Your task to perform on an android device: change text size in settings app Image 0: 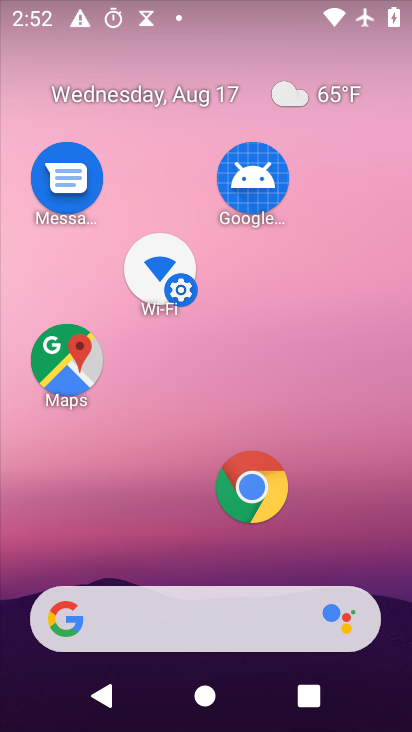
Step 0: drag from (240, 540) to (150, 8)
Your task to perform on an android device: change text size in settings app Image 1: 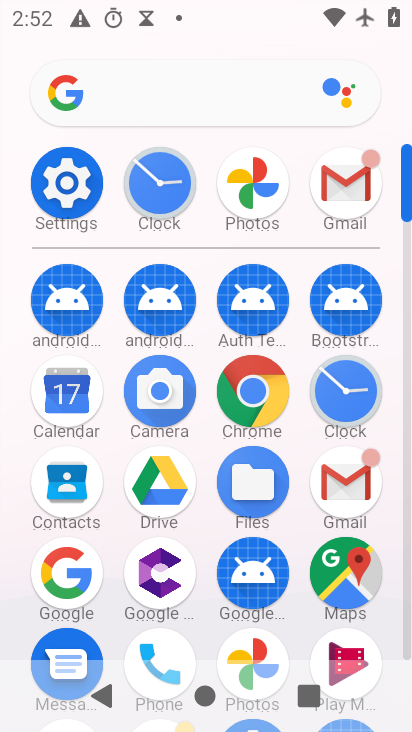
Step 1: click (68, 213)
Your task to perform on an android device: change text size in settings app Image 2: 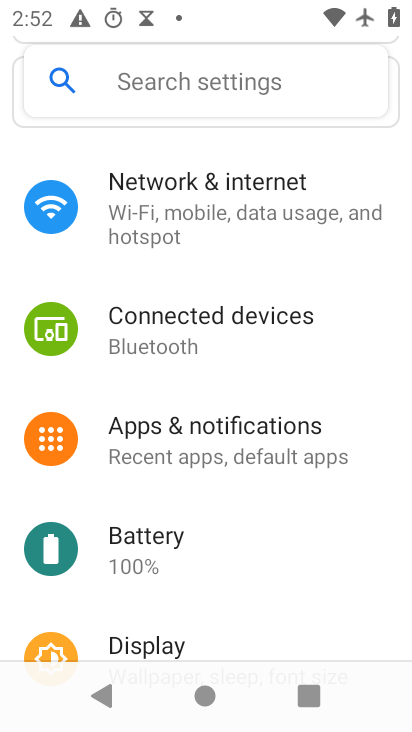
Step 2: drag from (309, 598) to (285, 108)
Your task to perform on an android device: change text size in settings app Image 3: 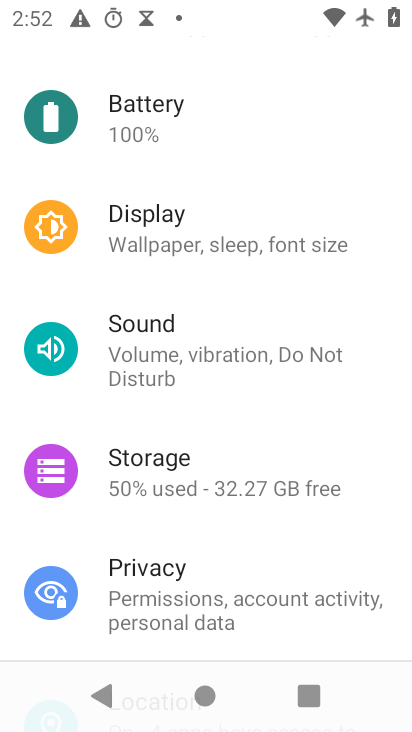
Step 3: click (202, 255)
Your task to perform on an android device: change text size in settings app Image 4: 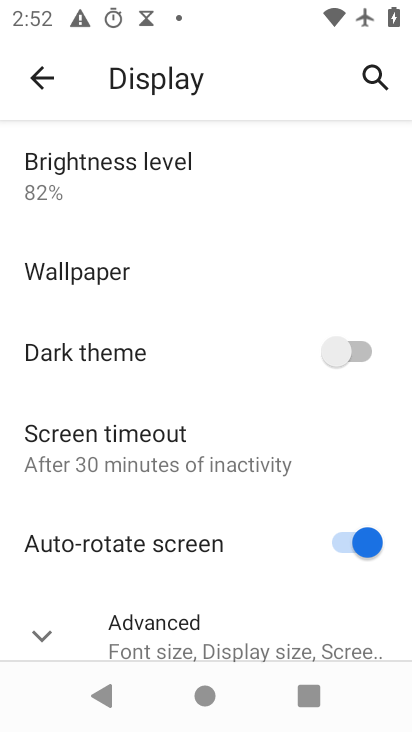
Step 4: drag from (284, 485) to (282, 346)
Your task to perform on an android device: change text size in settings app Image 5: 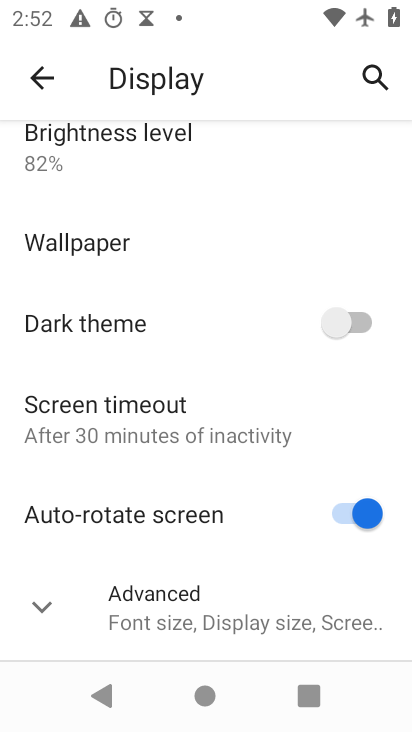
Step 5: click (171, 614)
Your task to perform on an android device: change text size in settings app Image 6: 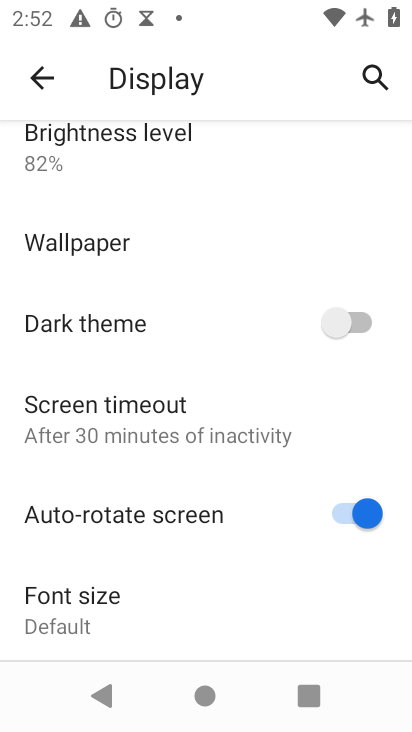
Step 6: click (77, 618)
Your task to perform on an android device: change text size in settings app Image 7: 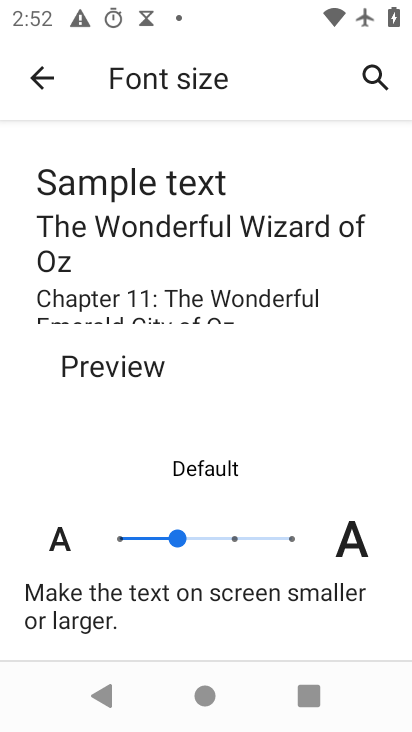
Step 7: click (232, 533)
Your task to perform on an android device: change text size in settings app Image 8: 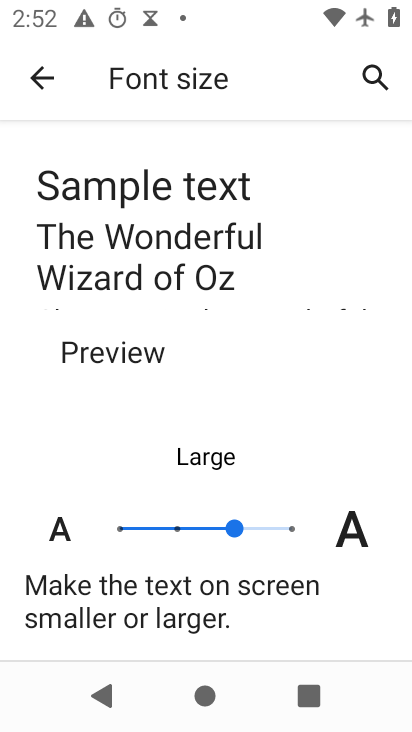
Step 8: task complete